Your task to perform on an android device: Show me recent news Image 0: 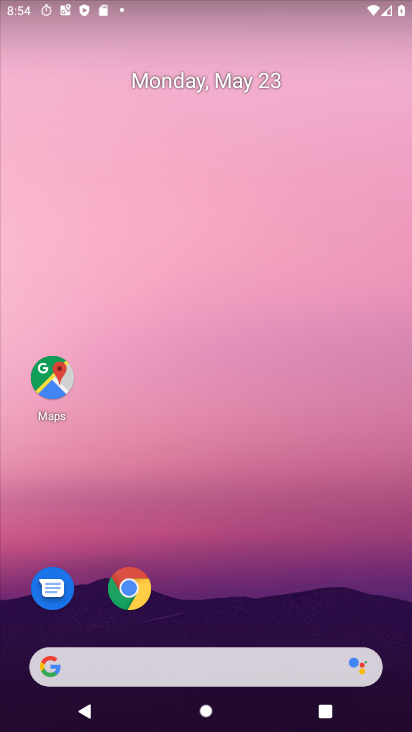
Step 0: drag from (389, 628) to (373, 178)
Your task to perform on an android device: Show me recent news Image 1: 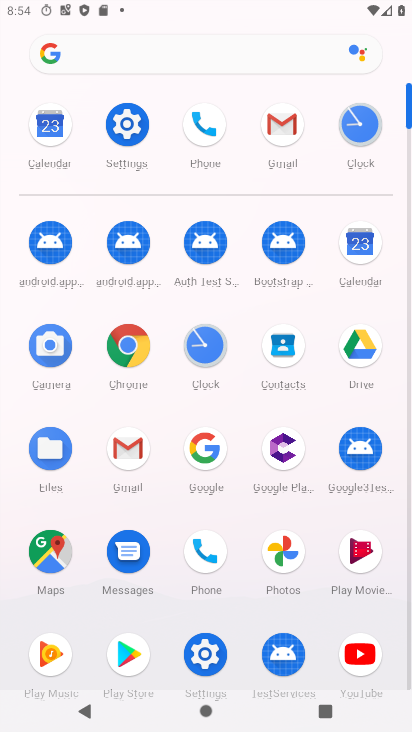
Step 1: click (195, 459)
Your task to perform on an android device: Show me recent news Image 2: 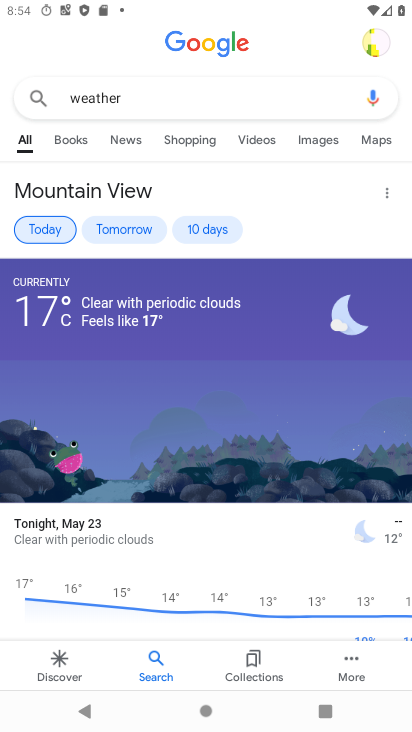
Step 2: click (127, 140)
Your task to perform on an android device: Show me recent news Image 3: 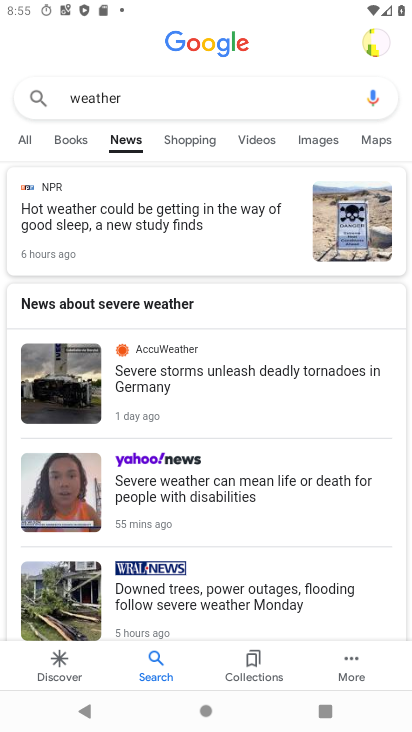
Step 3: task complete